Your task to perform on an android device: turn notification dots off Image 0: 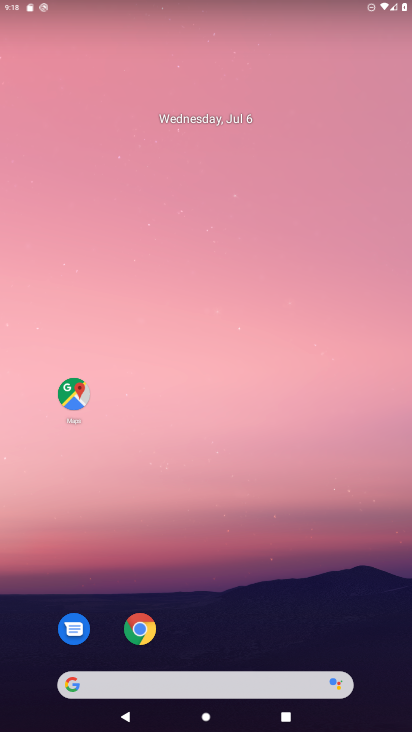
Step 0: drag from (254, 618) to (242, 221)
Your task to perform on an android device: turn notification dots off Image 1: 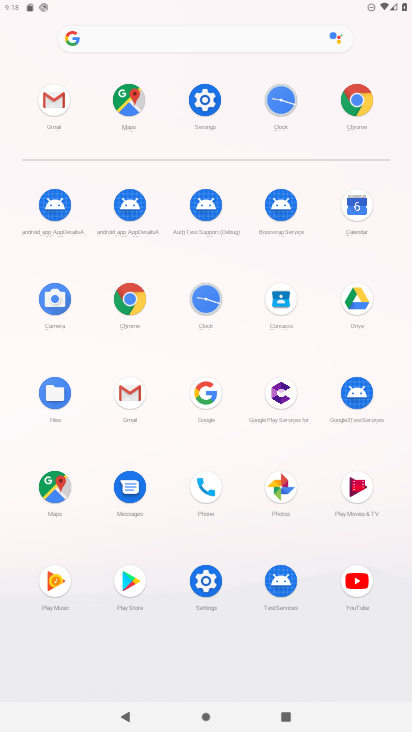
Step 1: click (211, 89)
Your task to perform on an android device: turn notification dots off Image 2: 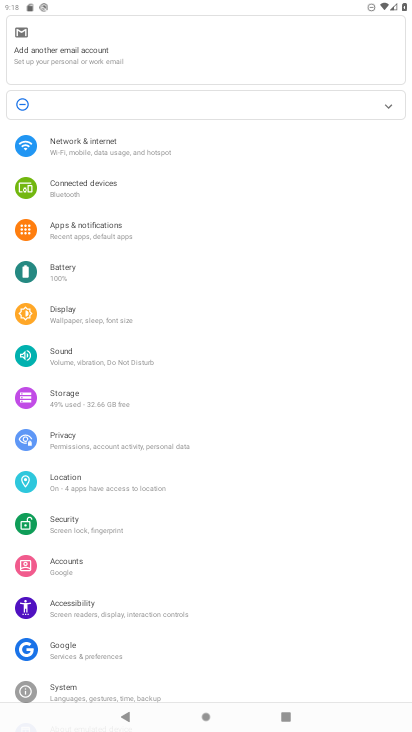
Step 2: click (82, 223)
Your task to perform on an android device: turn notification dots off Image 3: 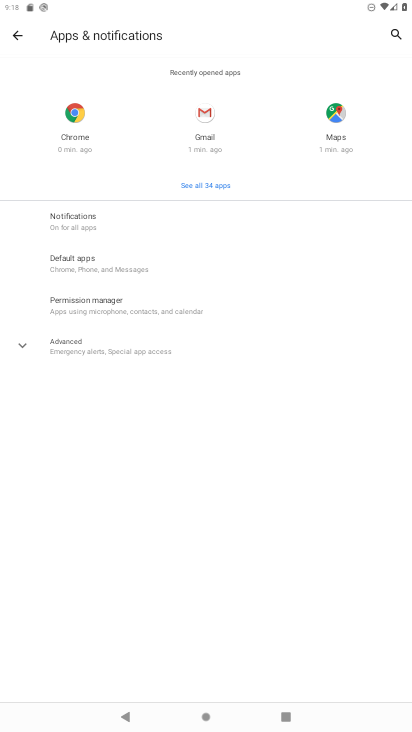
Step 3: click (105, 349)
Your task to perform on an android device: turn notification dots off Image 4: 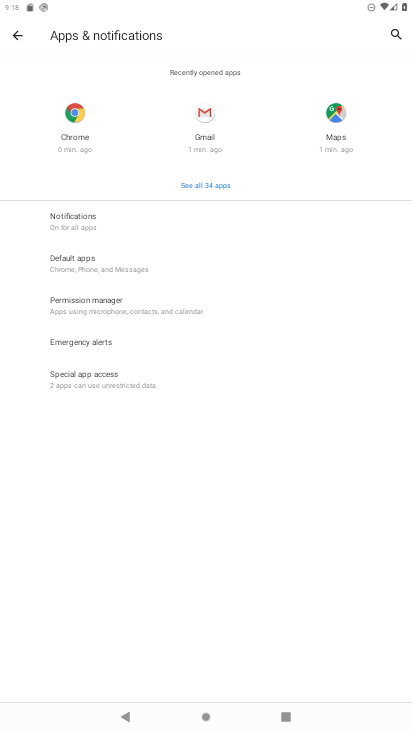
Step 4: click (86, 226)
Your task to perform on an android device: turn notification dots off Image 5: 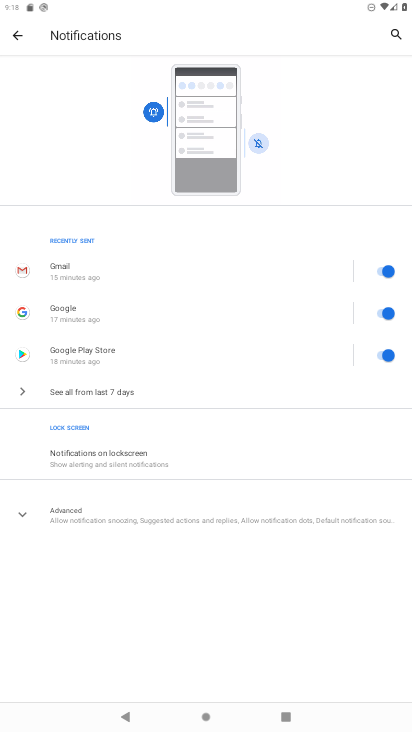
Step 5: click (87, 513)
Your task to perform on an android device: turn notification dots off Image 6: 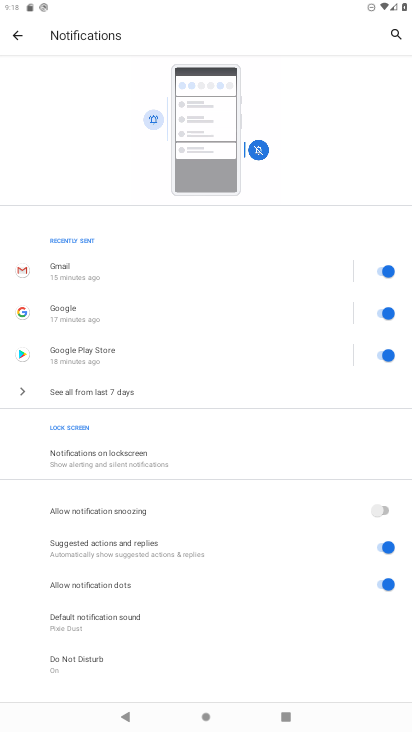
Step 6: click (391, 581)
Your task to perform on an android device: turn notification dots off Image 7: 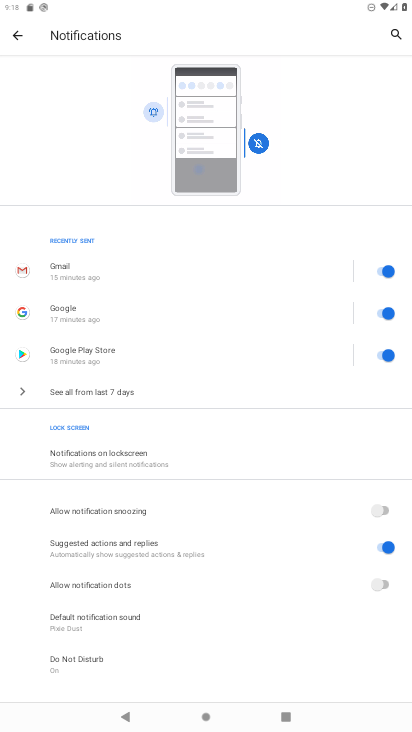
Step 7: task complete